Your task to perform on an android device: Go to Google maps Image 0: 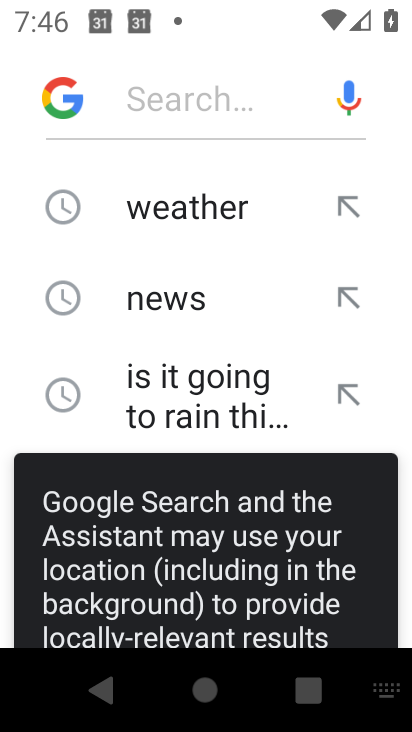
Step 0: press back button
Your task to perform on an android device: Go to Google maps Image 1: 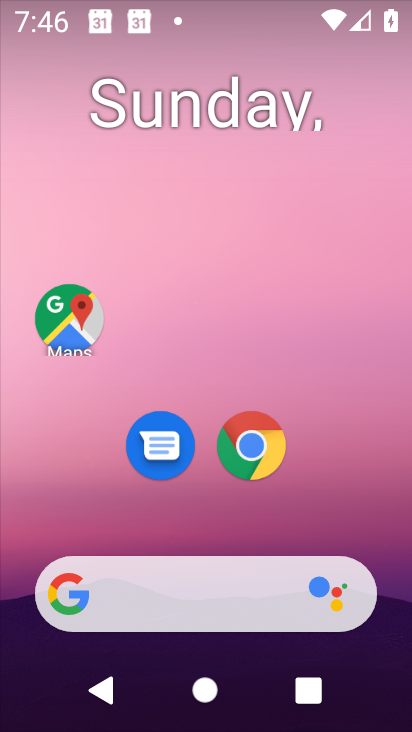
Step 1: click (58, 316)
Your task to perform on an android device: Go to Google maps Image 2: 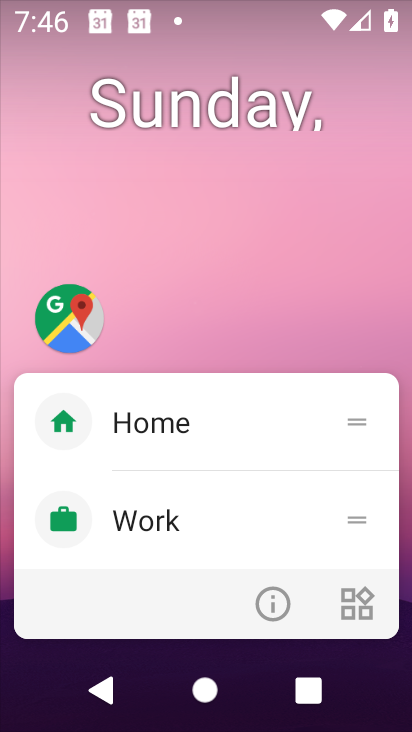
Step 2: click (58, 316)
Your task to perform on an android device: Go to Google maps Image 3: 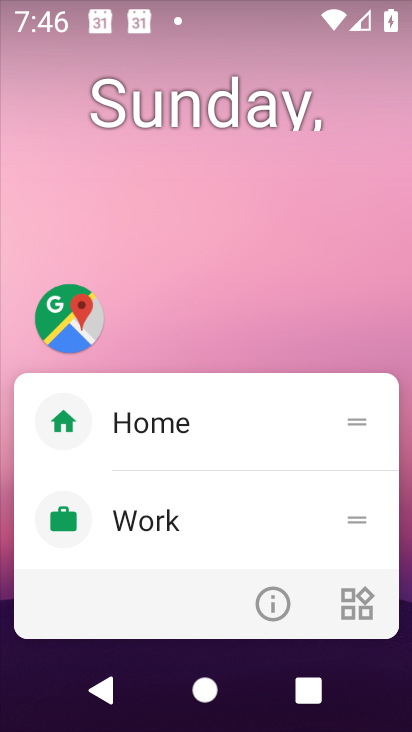
Step 3: click (57, 316)
Your task to perform on an android device: Go to Google maps Image 4: 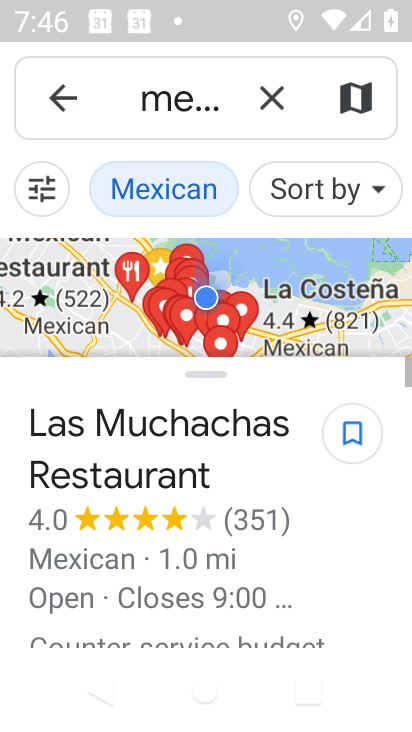
Step 4: click (270, 98)
Your task to perform on an android device: Go to Google maps Image 5: 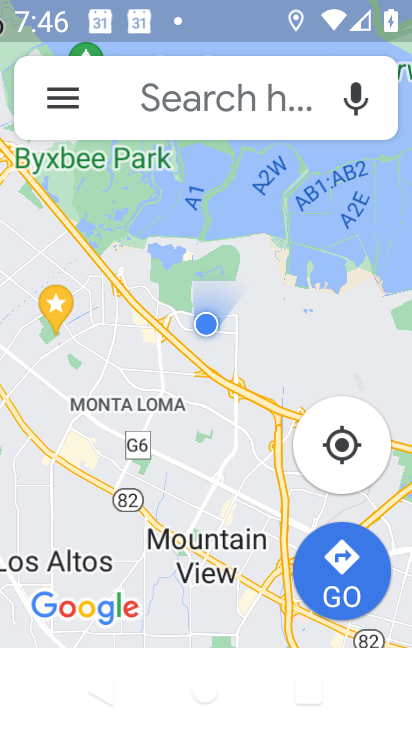
Step 5: task complete